Your task to perform on an android device: turn off javascript in the chrome app Image 0: 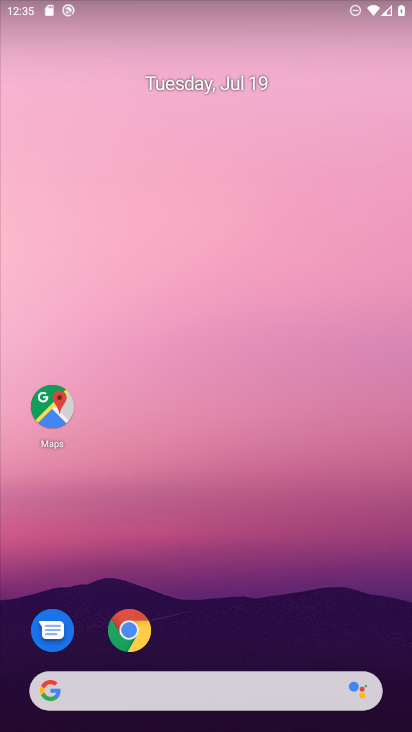
Step 0: press home button
Your task to perform on an android device: turn off javascript in the chrome app Image 1: 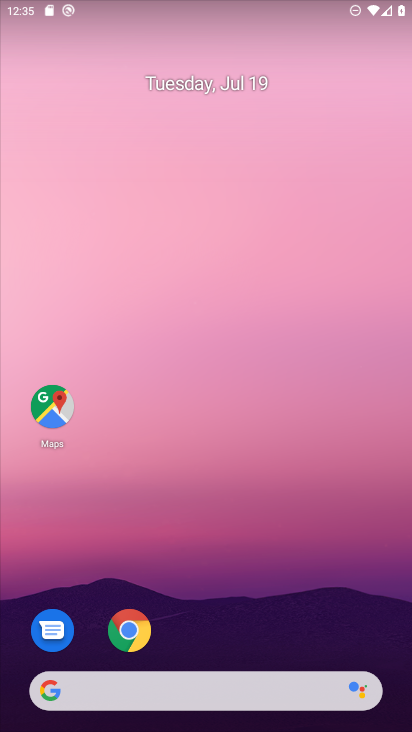
Step 1: press home button
Your task to perform on an android device: turn off javascript in the chrome app Image 2: 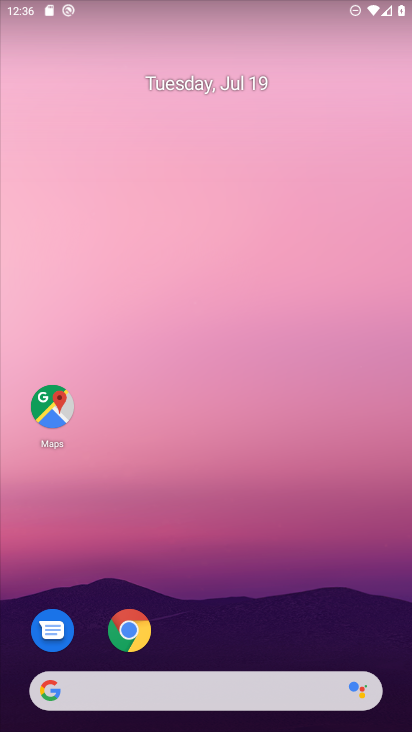
Step 2: click (134, 635)
Your task to perform on an android device: turn off javascript in the chrome app Image 3: 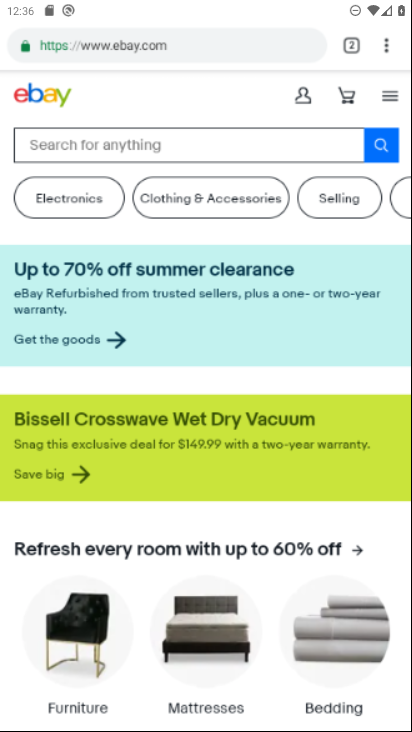
Step 3: click (134, 635)
Your task to perform on an android device: turn off javascript in the chrome app Image 4: 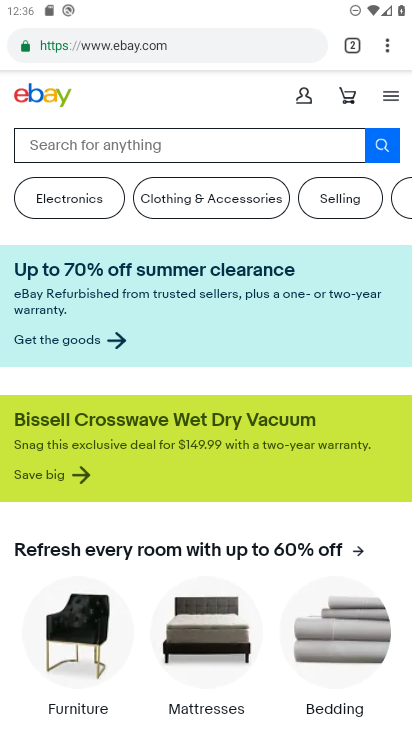
Step 4: drag from (388, 45) to (253, 554)
Your task to perform on an android device: turn off javascript in the chrome app Image 5: 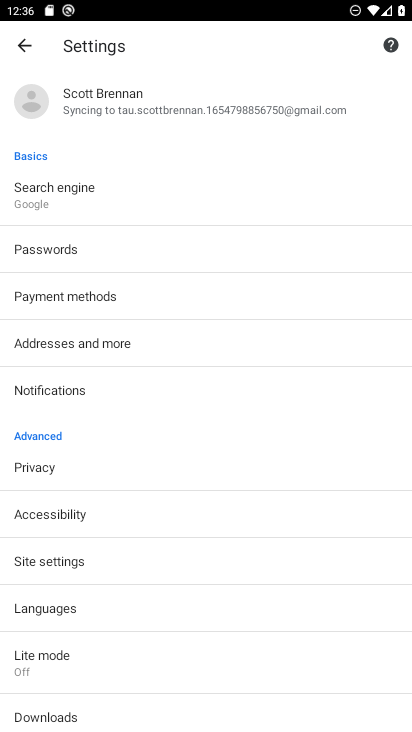
Step 5: click (78, 565)
Your task to perform on an android device: turn off javascript in the chrome app Image 6: 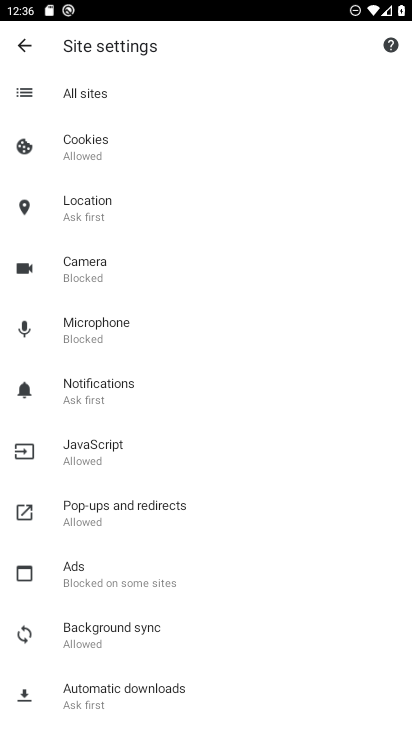
Step 6: click (97, 451)
Your task to perform on an android device: turn off javascript in the chrome app Image 7: 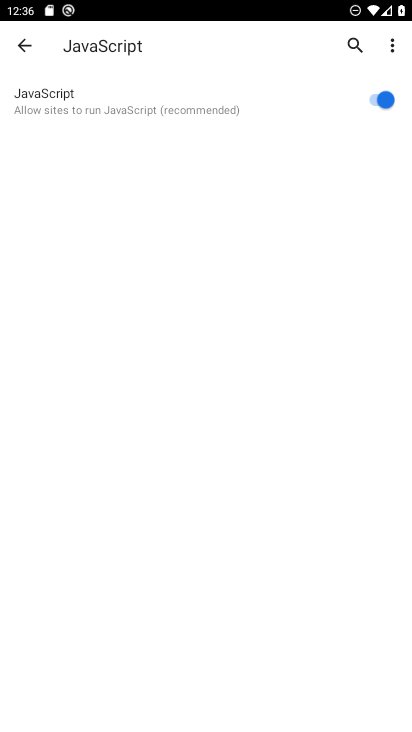
Step 7: click (375, 95)
Your task to perform on an android device: turn off javascript in the chrome app Image 8: 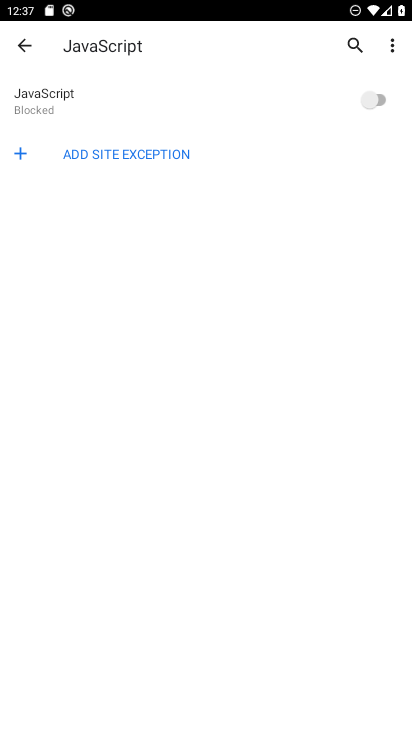
Step 8: task complete